Your task to perform on an android device: Open location settings Image 0: 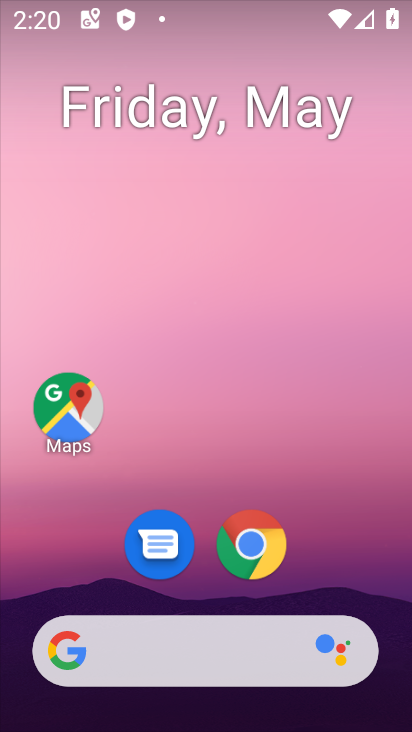
Step 0: drag from (205, 566) to (209, 186)
Your task to perform on an android device: Open location settings Image 1: 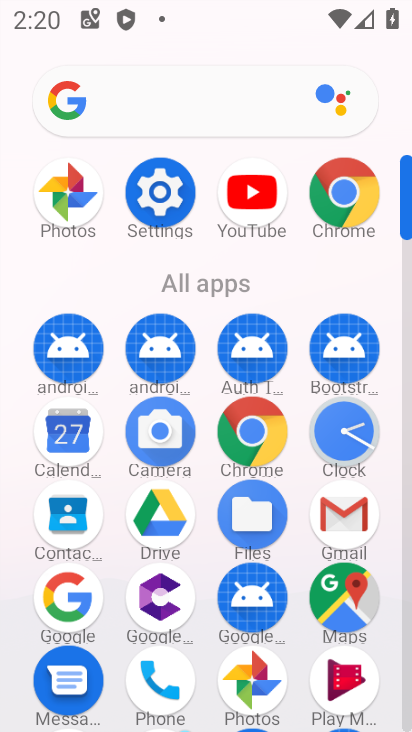
Step 1: click (172, 193)
Your task to perform on an android device: Open location settings Image 2: 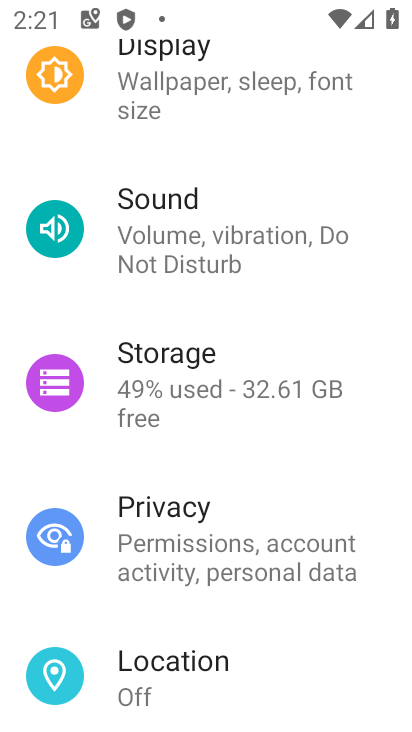
Step 2: drag from (232, 647) to (234, 350)
Your task to perform on an android device: Open location settings Image 3: 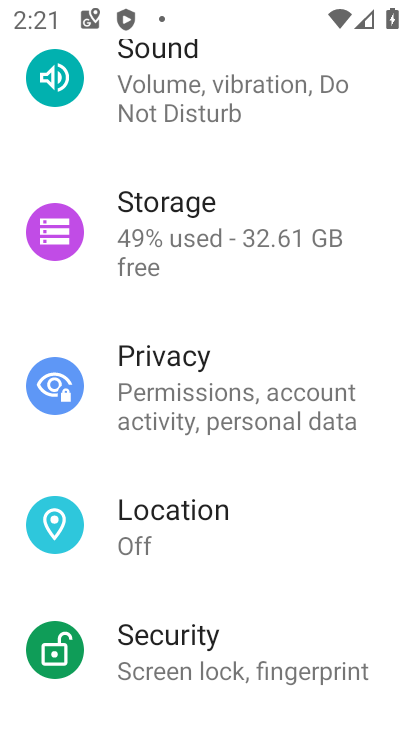
Step 3: click (213, 509)
Your task to perform on an android device: Open location settings Image 4: 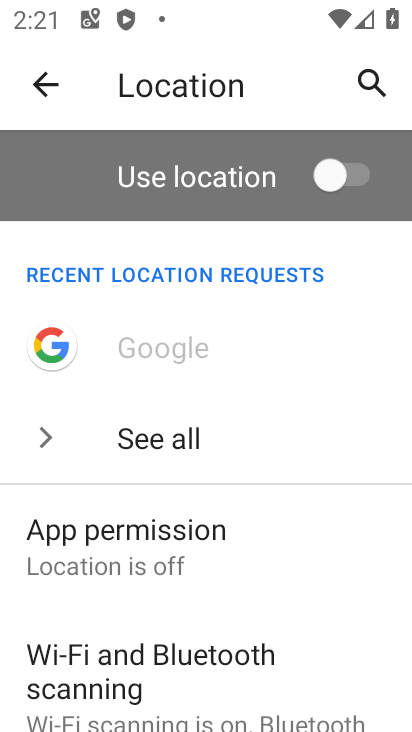
Step 4: task complete